Your task to perform on an android device: turn on priority inbox in the gmail app Image 0: 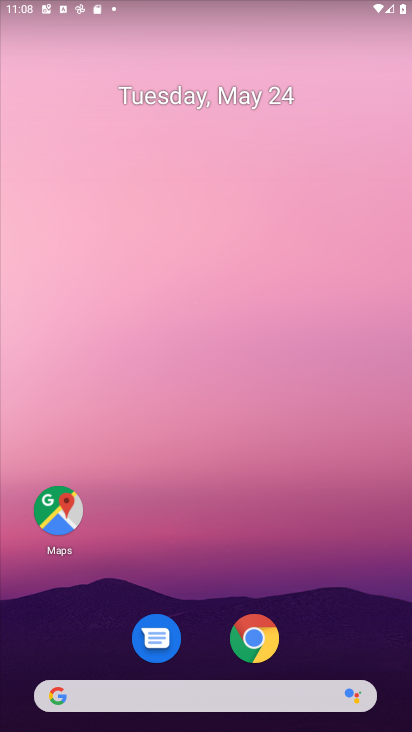
Step 0: drag from (193, 565) to (185, 117)
Your task to perform on an android device: turn on priority inbox in the gmail app Image 1: 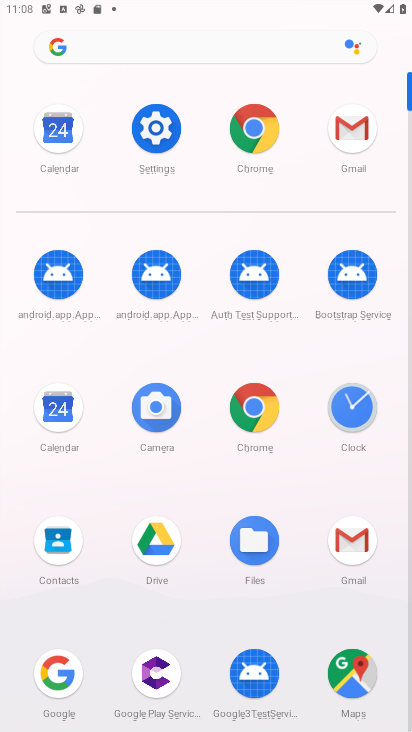
Step 1: click (354, 130)
Your task to perform on an android device: turn on priority inbox in the gmail app Image 2: 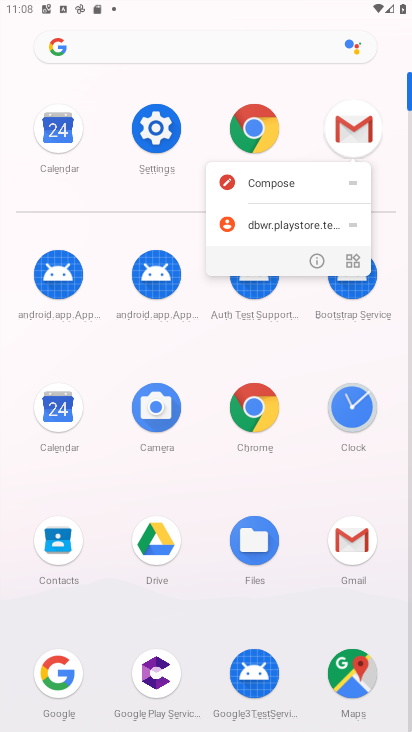
Step 2: click (354, 131)
Your task to perform on an android device: turn on priority inbox in the gmail app Image 3: 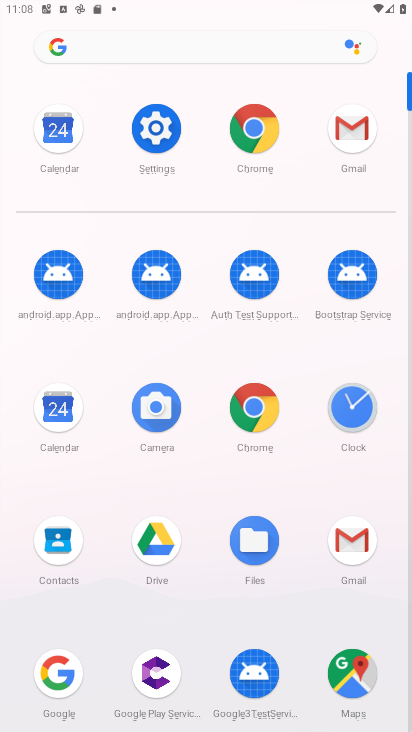
Step 3: click (339, 143)
Your task to perform on an android device: turn on priority inbox in the gmail app Image 4: 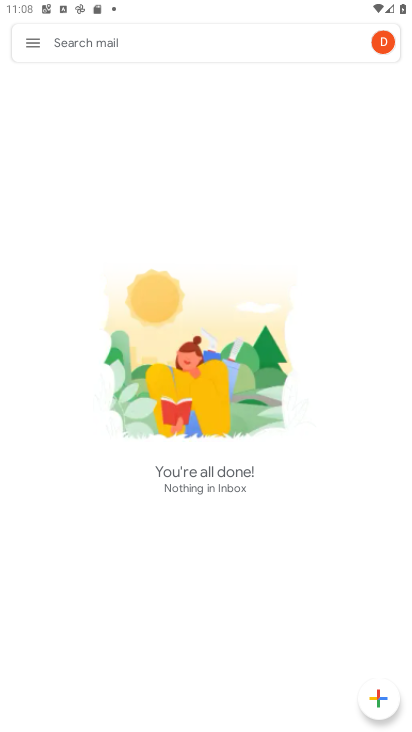
Step 4: click (39, 39)
Your task to perform on an android device: turn on priority inbox in the gmail app Image 5: 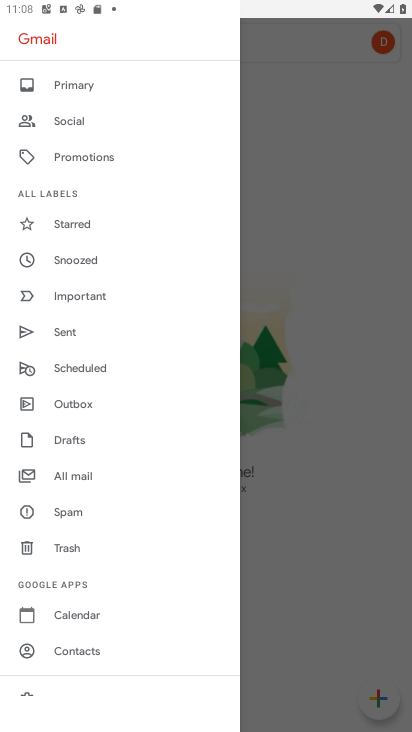
Step 5: drag from (148, 670) to (119, 283)
Your task to perform on an android device: turn on priority inbox in the gmail app Image 6: 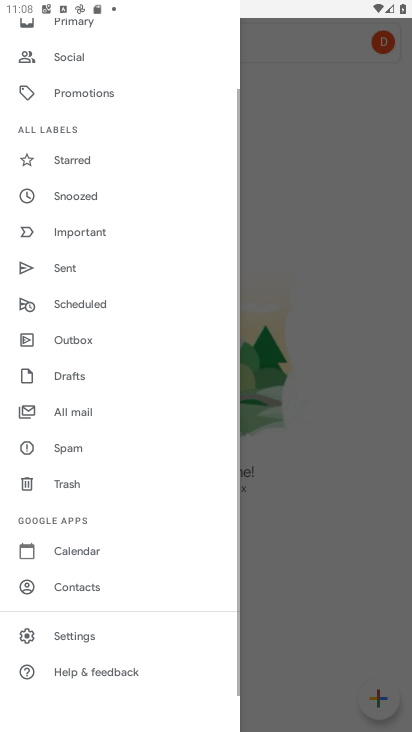
Step 6: click (64, 638)
Your task to perform on an android device: turn on priority inbox in the gmail app Image 7: 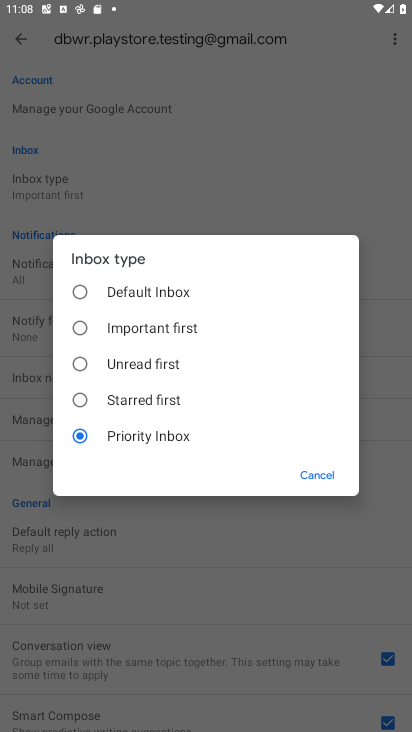
Step 7: task complete